Your task to perform on an android device: turn on the 24-hour format for clock Image 0: 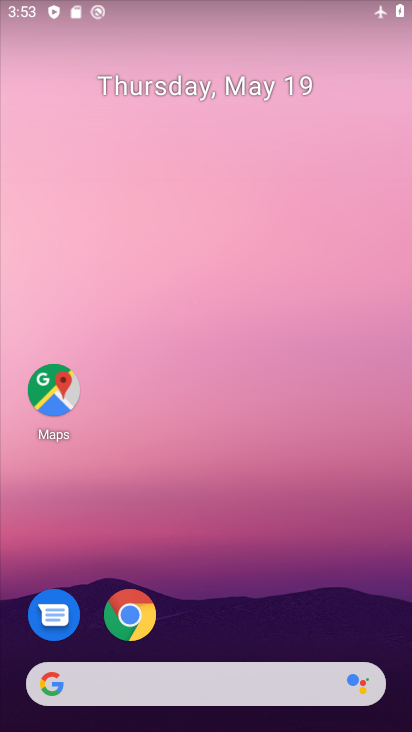
Step 0: drag from (236, 645) to (253, 1)
Your task to perform on an android device: turn on the 24-hour format for clock Image 1: 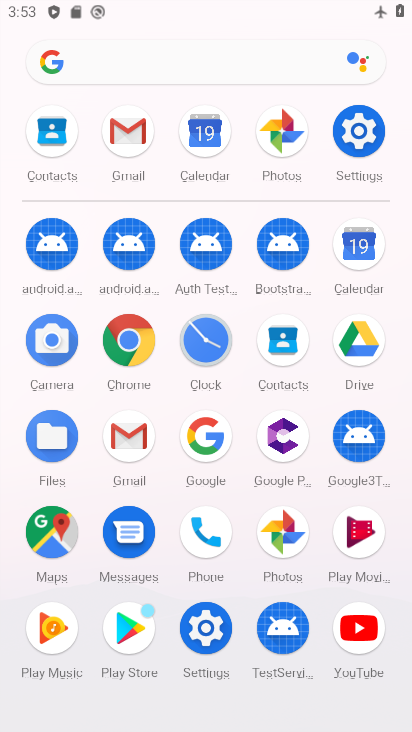
Step 1: click (211, 341)
Your task to perform on an android device: turn on the 24-hour format for clock Image 2: 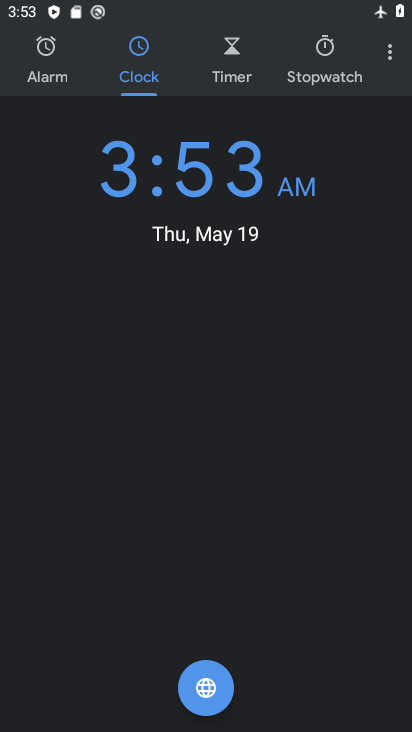
Step 2: click (395, 50)
Your task to perform on an android device: turn on the 24-hour format for clock Image 3: 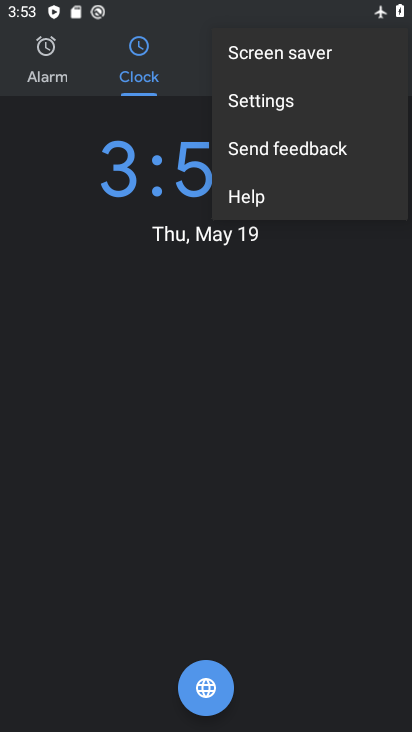
Step 3: click (246, 105)
Your task to perform on an android device: turn on the 24-hour format for clock Image 4: 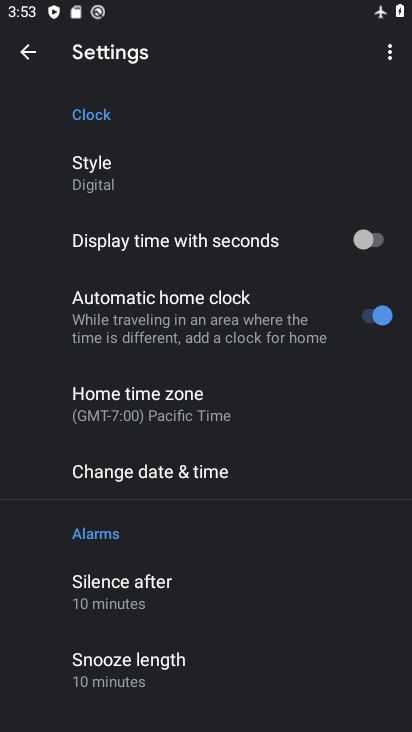
Step 4: click (179, 480)
Your task to perform on an android device: turn on the 24-hour format for clock Image 5: 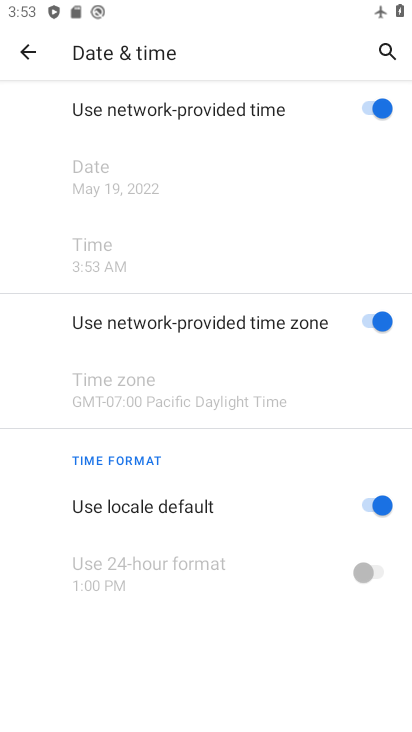
Step 5: click (367, 583)
Your task to perform on an android device: turn on the 24-hour format for clock Image 6: 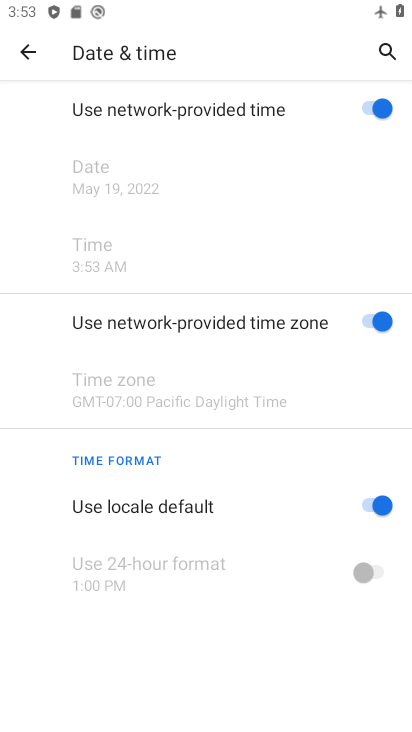
Step 6: click (389, 519)
Your task to perform on an android device: turn on the 24-hour format for clock Image 7: 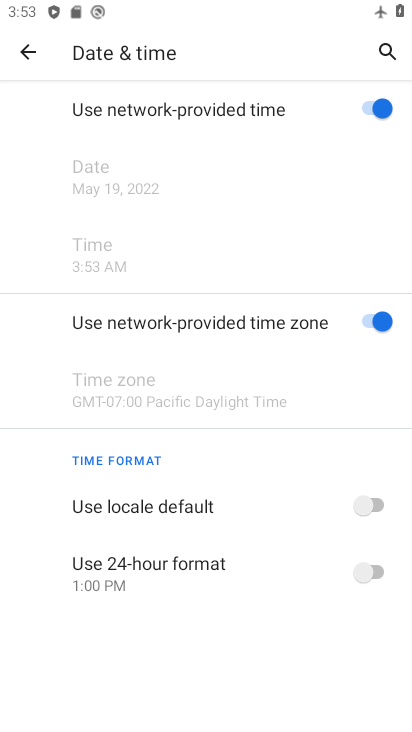
Step 7: click (365, 576)
Your task to perform on an android device: turn on the 24-hour format for clock Image 8: 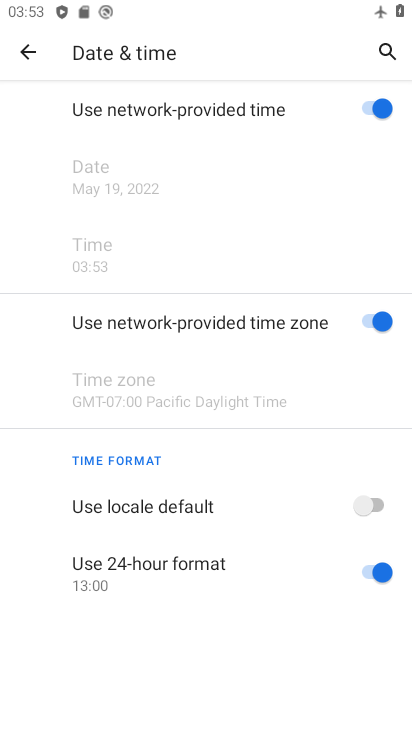
Step 8: task complete